Your task to perform on an android device: open app "NewsBreak: Local News & Alerts" Image 0: 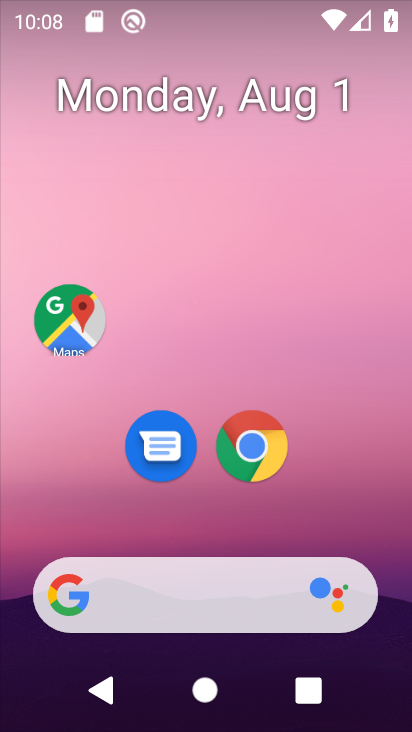
Step 0: drag from (143, 522) to (198, 31)
Your task to perform on an android device: open app "NewsBreak: Local News & Alerts" Image 1: 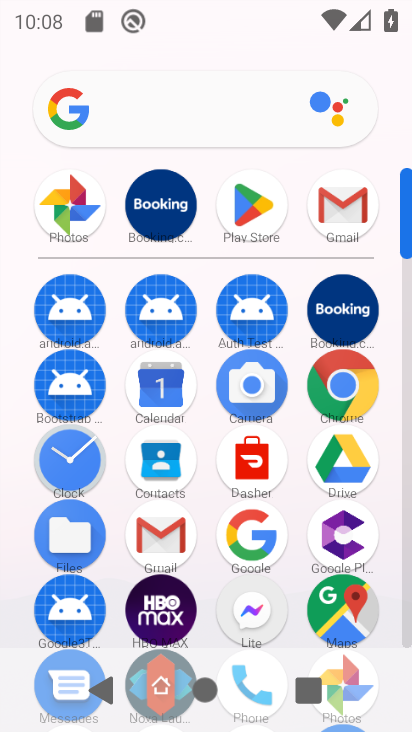
Step 1: click (255, 210)
Your task to perform on an android device: open app "NewsBreak: Local News & Alerts" Image 2: 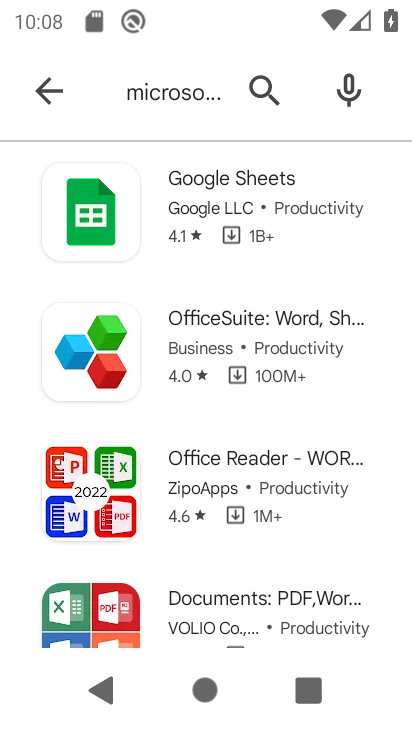
Step 2: click (264, 96)
Your task to perform on an android device: open app "NewsBreak: Local News & Alerts" Image 3: 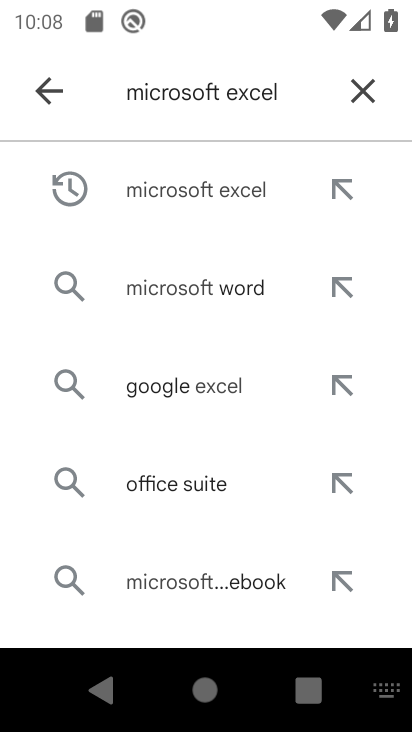
Step 3: click (354, 87)
Your task to perform on an android device: open app "NewsBreak: Local News & Alerts" Image 4: 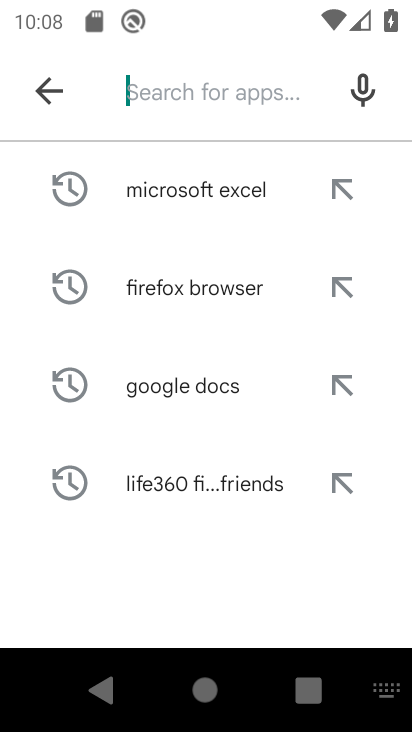
Step 4: type "NewsBreak: Local News & Alerts"
Your task to perform on an android device: open app "NewsBreak: Local News & Alerts" Image 5: 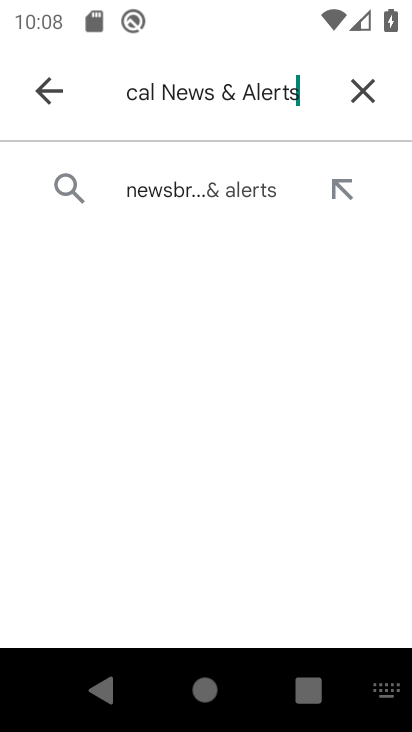
Step 5: click (192, 186)
Your task to perform on an android device: open app "NewsBreak: Local News & Alerts" Image 6: 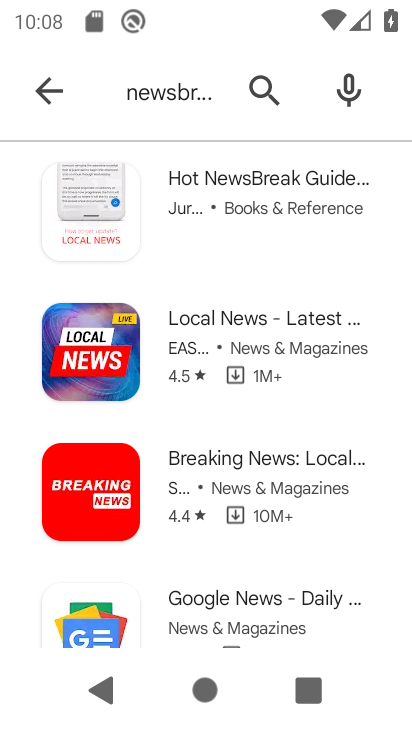
Step 6: task complete